Your task to perform on an android device: toggle priority inbox in the gmail app Image 0: 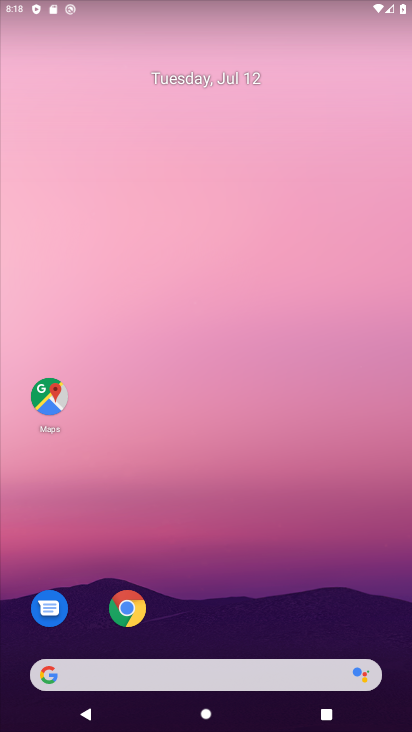
Step 0: drag from (227, 568) to (297, 81)
Your task to perform on an android device: toggle priority inbox in the gmail app Image 1: 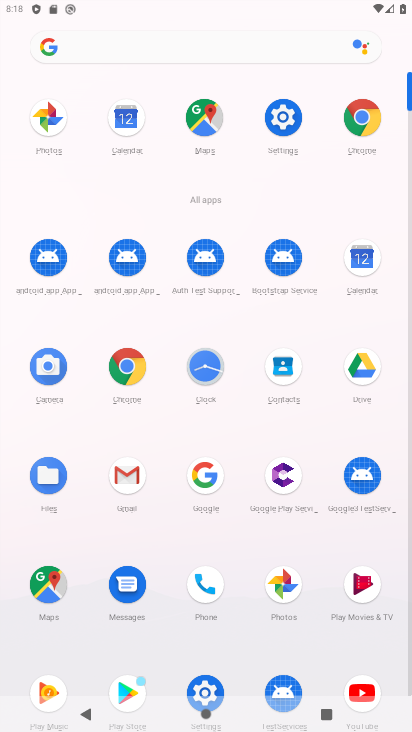
Step 1: click (111, 484)
Your task to perform on an android device: toggle priority inbox in the gmail app Image 2: 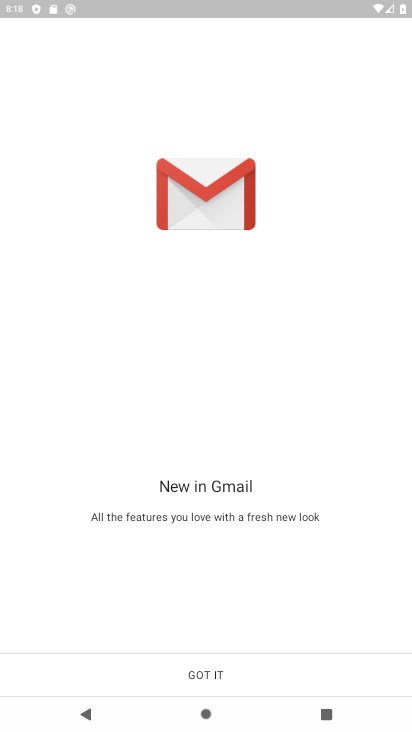
Step 2: click (176, 638)
Your task to perform on an android device: toggle priority inbox in the gmail app Image 3: 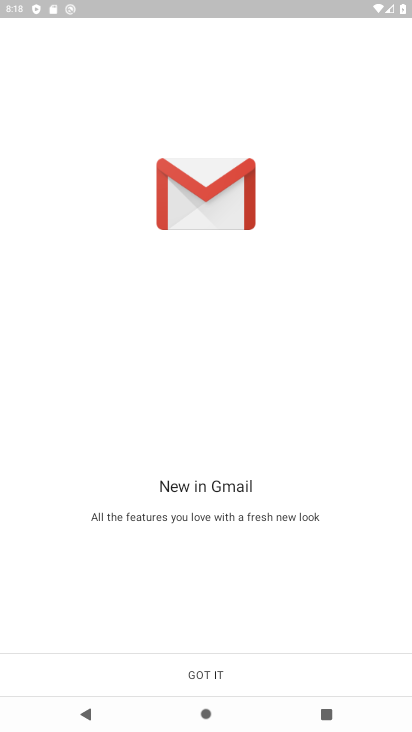
Step 3: click (178, 651)
Your task to perform on an android device: toggle priority inbox in the gmail app Image 4: 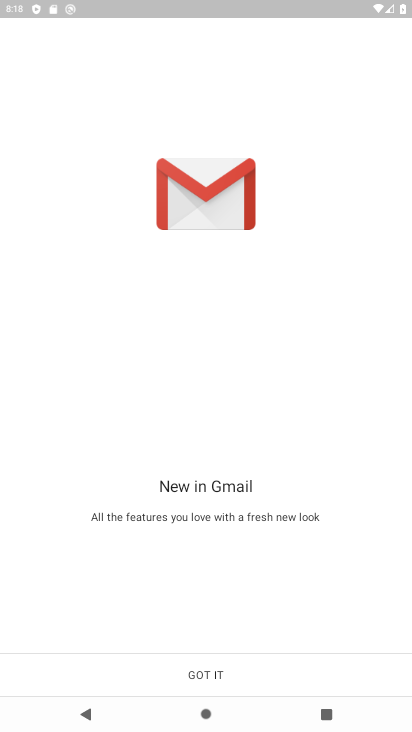
Step 4: click (180, 662)
Your task to perform on an android device: toggle priority inbox in the gmail app Image 5: 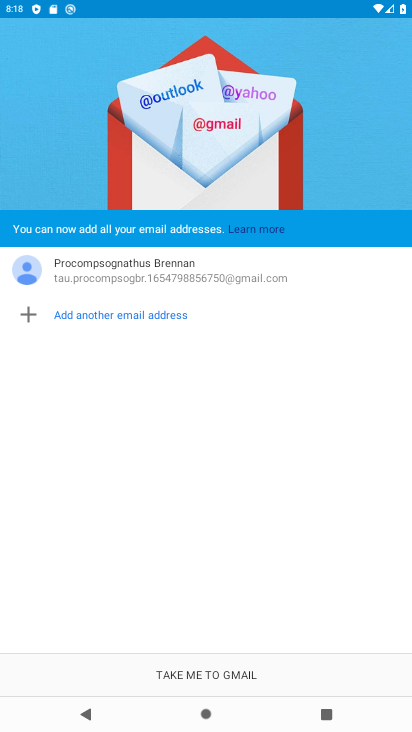
Step 5: click (207, 682)
Your task to perform on an android device: toggle priority inbox in the gmail app Image 6: 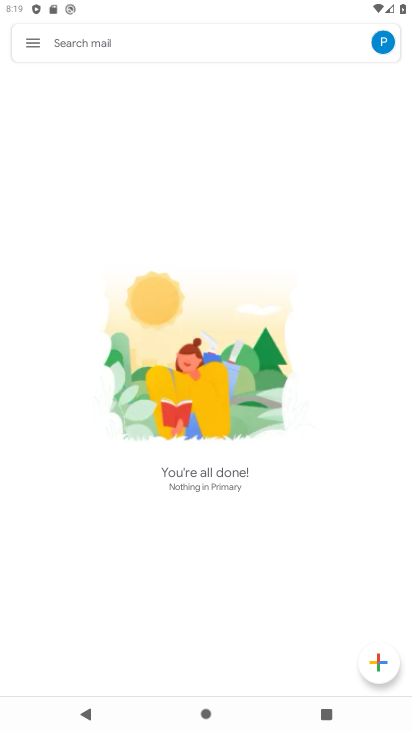
Step 6: click (38, 48)
Your task to perform on an android device: toggle priority inbox in the gmail app Image 7: 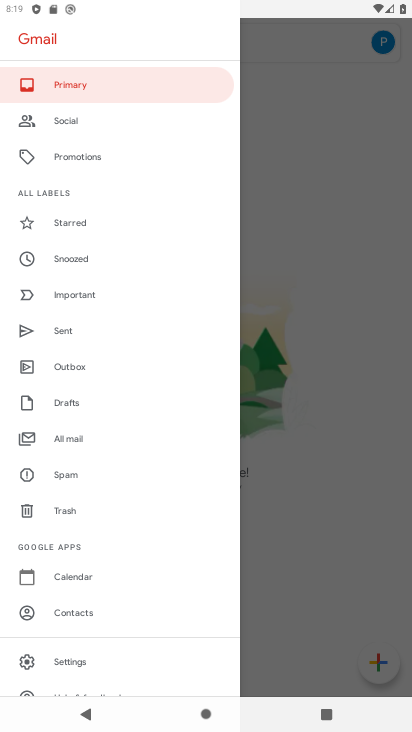
Step 7: click (90, 655)
Your task to perform on an android device: toggle priority inbox in the gmail app Image 8: 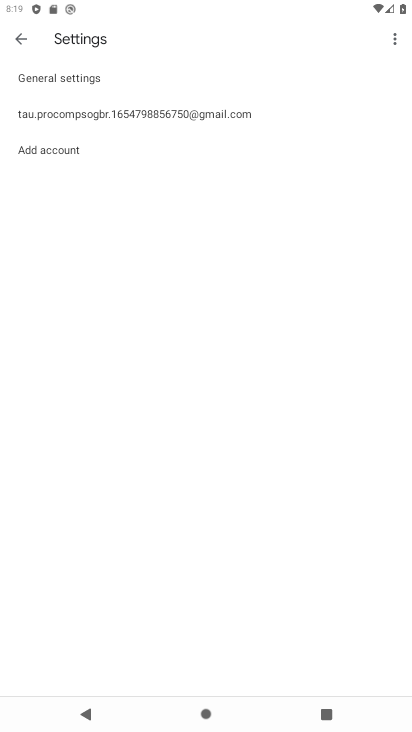
Step 8: click (150, 118)
Your task to perform on an android device: toggle priority inbox in the gmail app Image 9: 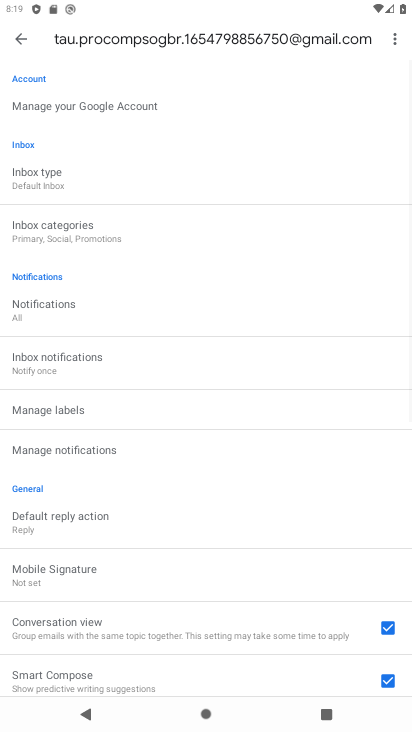
Step 9: click (25, 193)
Your task to perform on an android device: toggle priority inbox in the gmail app Image 10: 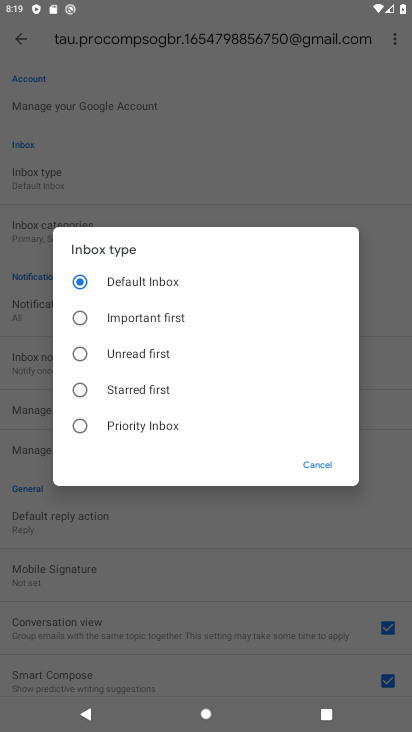
Step 10: click (85, 417)
Your task to perform on an android device: toggle priority inbox in the gmail app Image 11: 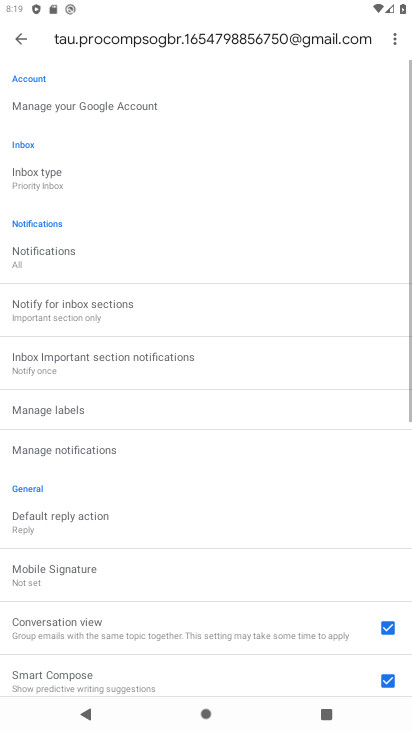
Step 11: task complete